Your task to perform on an android device: Go to location settings Image 0: 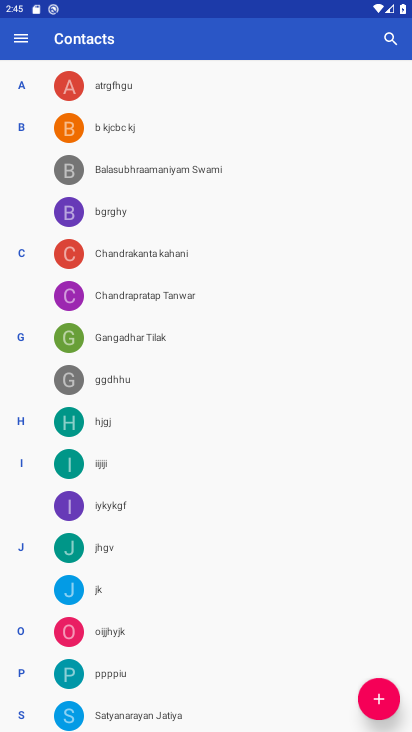
Step 0: press home button
Your task to perform on an android device: Go to location settings Image 1: 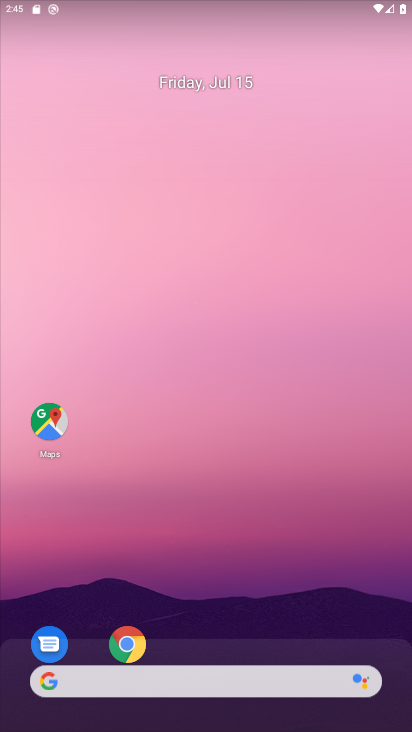
Step 1: drag from (167, 636) to (194, 83)
Your task to perform on an android device: Go to location settings Image 2: 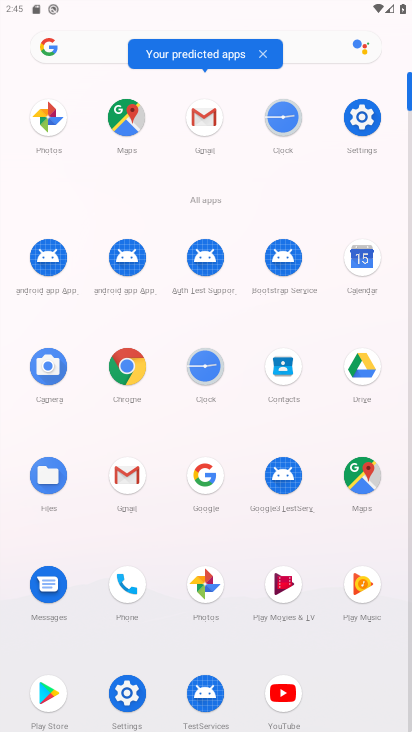
Step 2: click (360, 107)
Your task to perform on an android device: Go to location settings Image 3: 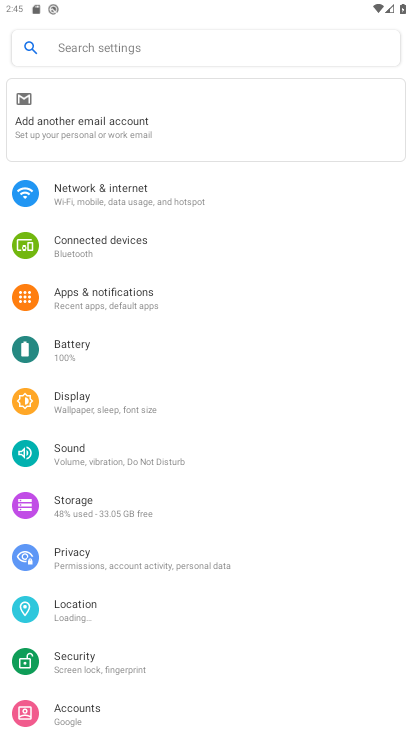
Step 3: click (86, 535)
Your task to perform on an android device: Go to location settings Image 4: 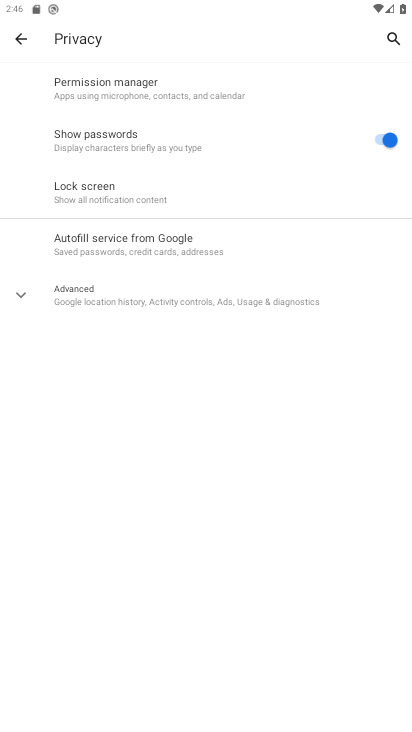
Step 4: click (38, 51)
Your task to perform on an android device: Go to location settings Image 5: 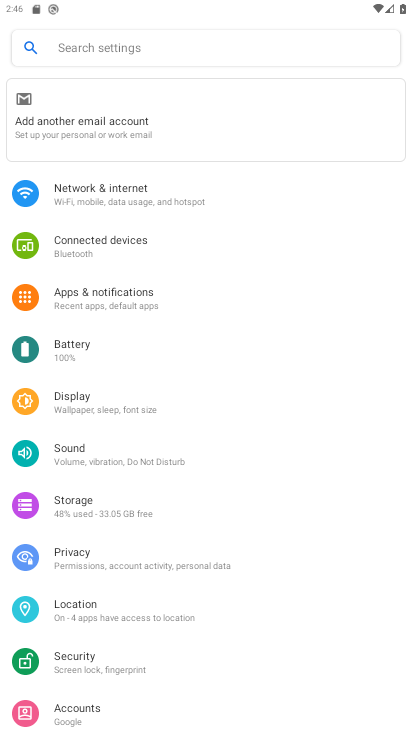
Step 5: click (52, 627)
Your task to perform on an android device: Go to location settings Image 6: 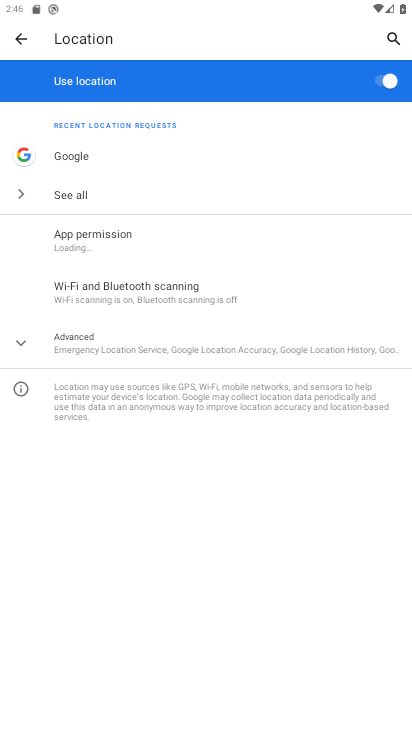
Step 6: task complete